Your task to perform on an android device: toggle priority inbox in the gmail app Image 0: 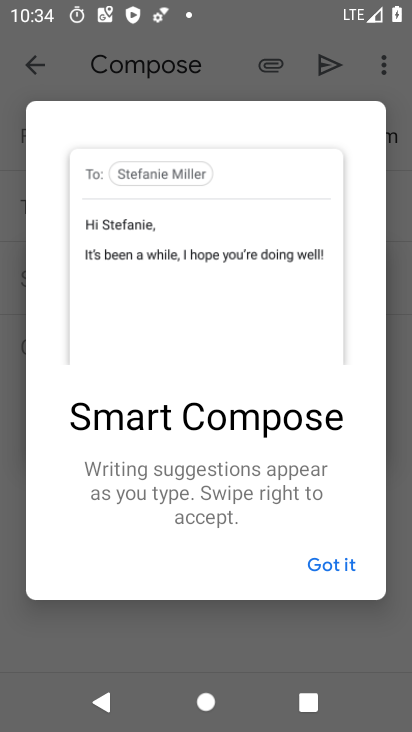
Step 0: press home button
Your task to perform on an android device: toggle priority inbox in the gmail app Image 1: 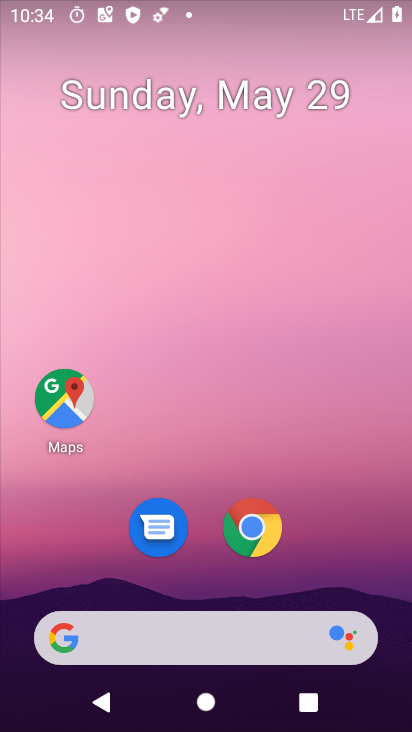
Step 1: drag from (322, 503) to (302, 91)
Your task to perform on an android device: toggle priority inbox in the gmail app Image 2: 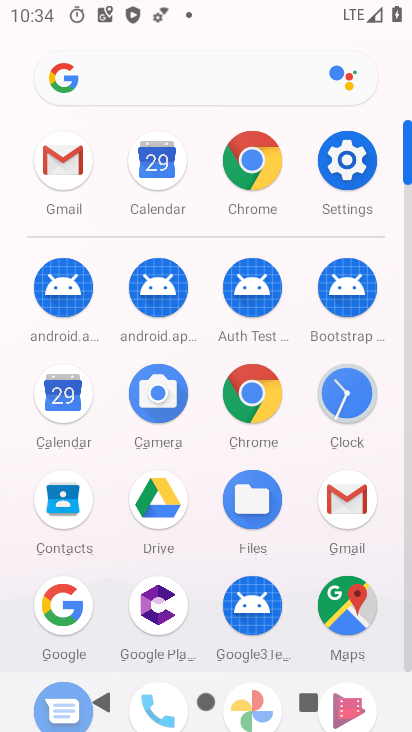
Step 2: click (61, 170)
Your task to perform on an android device: toggle priority inbox in the gmail app Image 3: 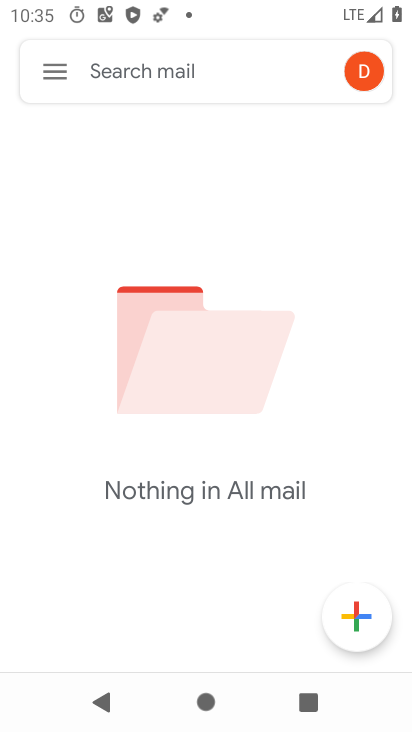
Step 3: click (64, 51)
Your task to perform on an android device: toggle priority inbox in the gmail app Image 4: 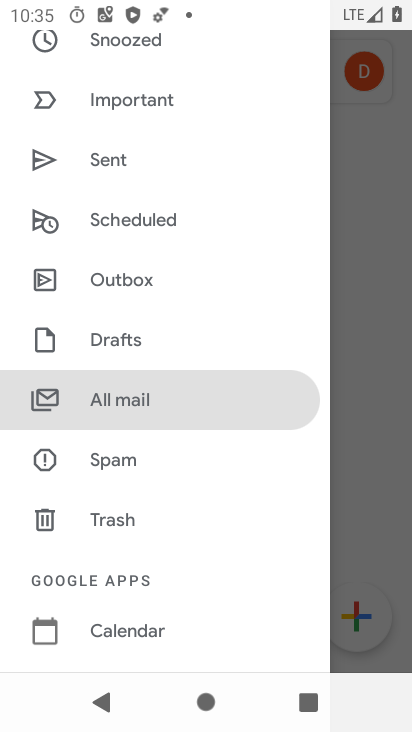
Step 4: drag from (170, 586) to (168, 67)
Your task to perform on an android device: toggle priority inbox in the gmail app Image 5: 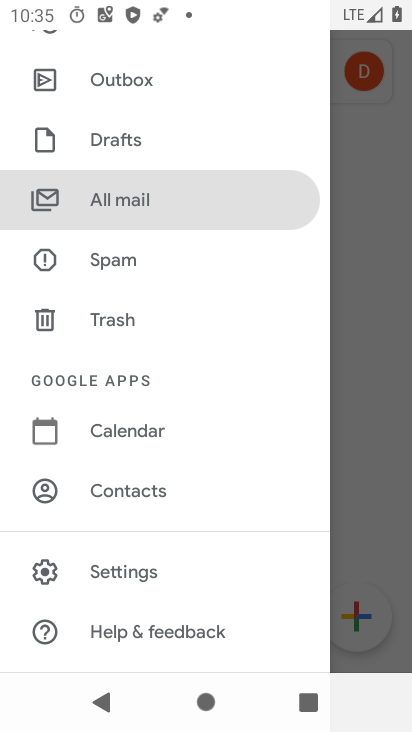
Step 5: click (148, 558)
Your task to perform on an android device: toggle priority inbox in the gmail app Image 6: 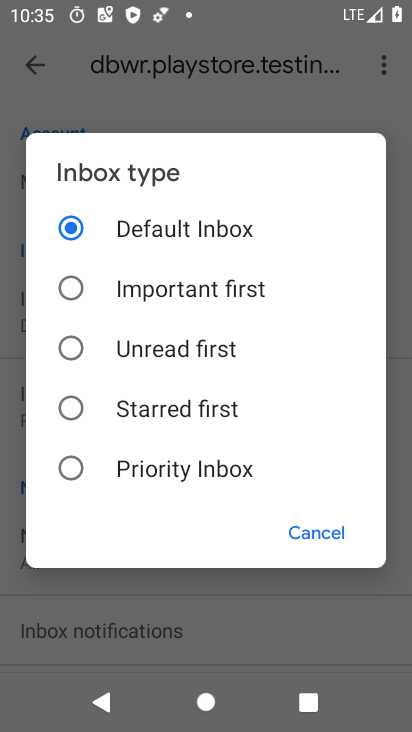
Step 6: click (197, 469)
Your task to perform on an android device: toggle priority inbox in the gmail app Image 7: 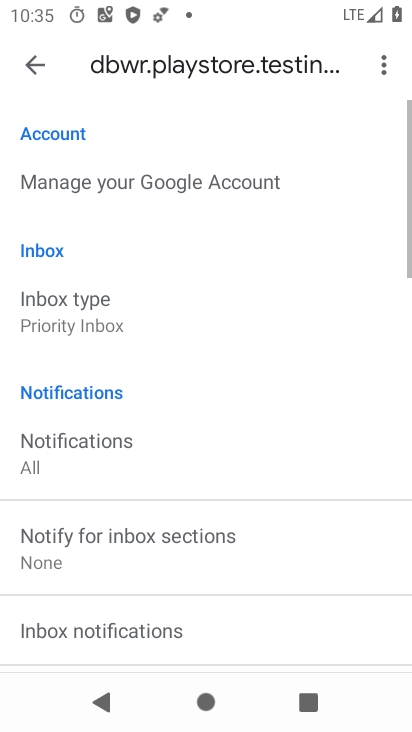
Step 7: task complete